Your task to perform on an android device: Go to Yahoo.com Image 0: 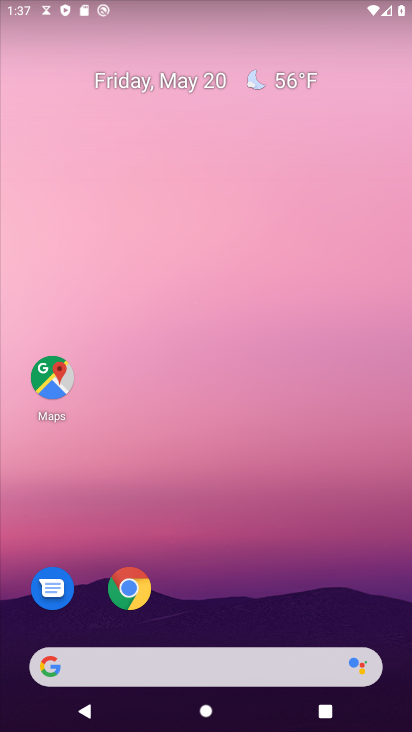
Step 0: press home button
Your task to perform on an android device: Go to Yahoo.com Image 1: 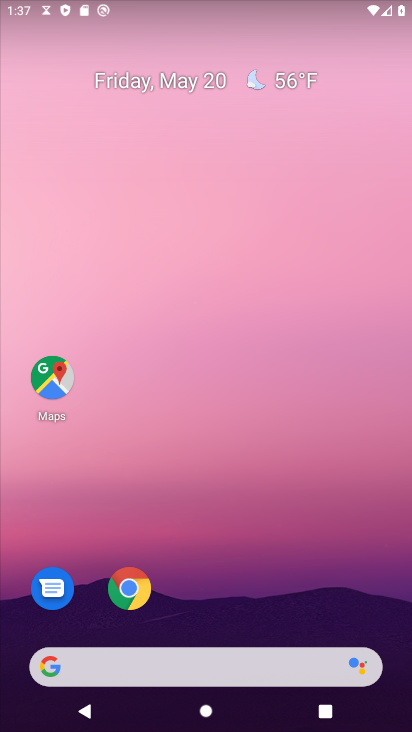
Step 1: click (129, 597)
Your task to perform on an android device: Go to Yahoo.com Image 2: 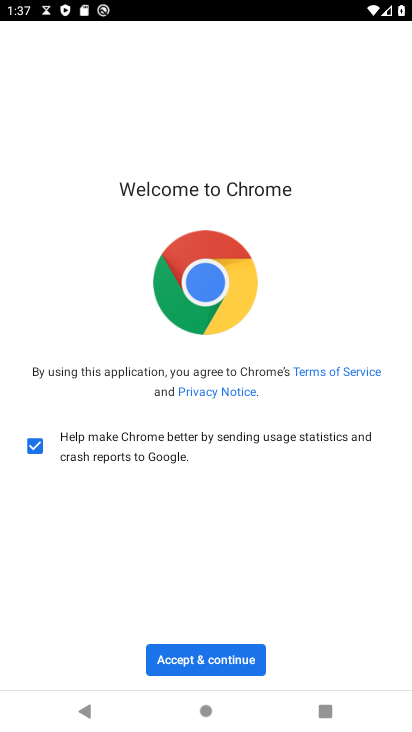
Step 2: click (192, 655)
Your task to perform on an android device: Go to Yahoo.com Image 3: 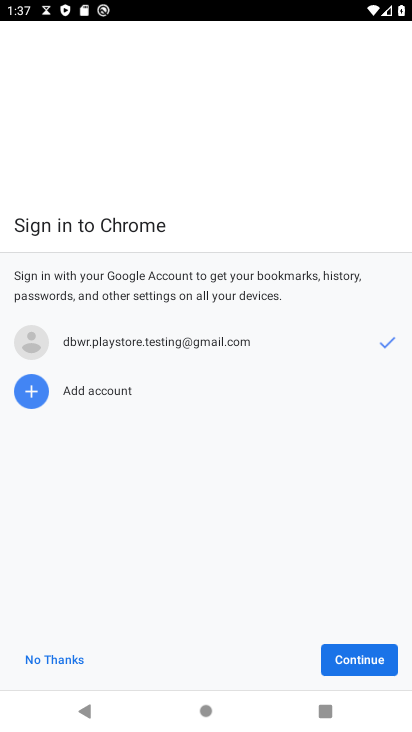
Step 3: click (60, 651)
Your task to perform on an android device: Go to Yahoo.com Image 4: 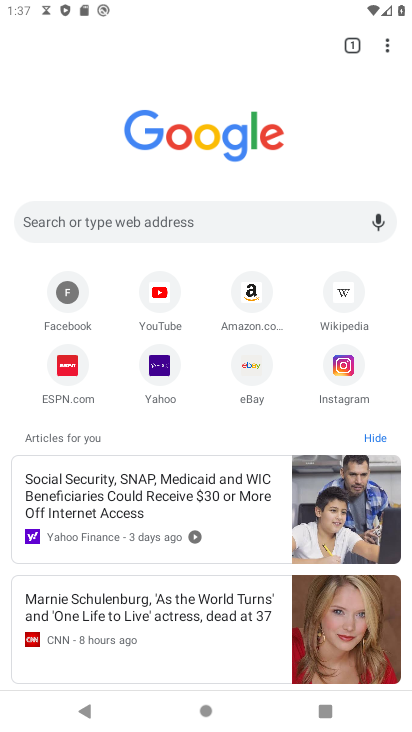
Step 4: click (156, 365)
Your task to perform on an android device: Go to Yahoo.com Image 5: 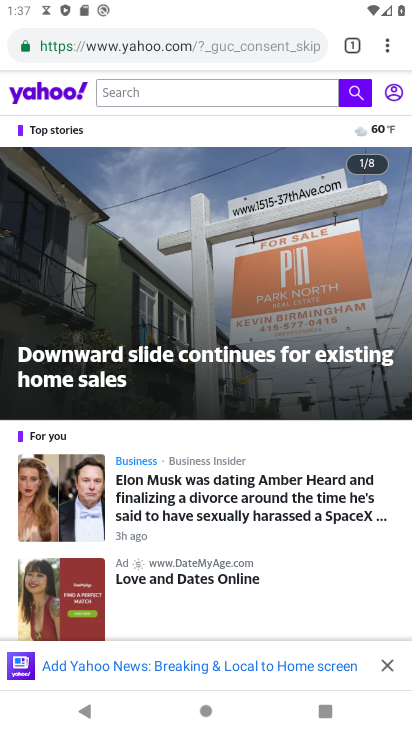
Step 5: task complete